Your task to perform on an android device: find photos in the google photos app Image 0: 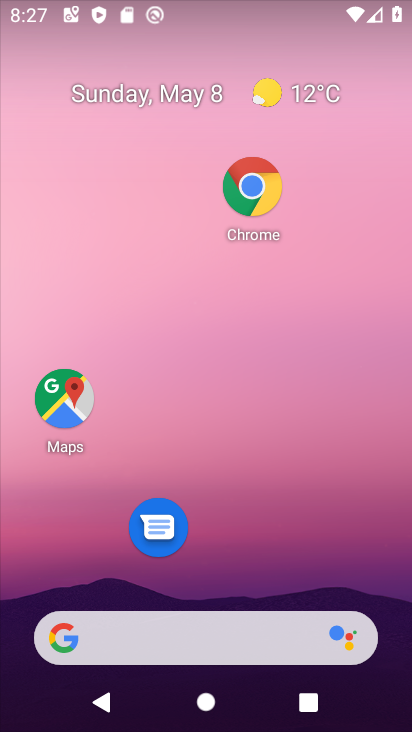
Step 0: drag from (314, 411) to (322, 265)
Your task to perform on an android device: find photos in the google photos app Image 1: 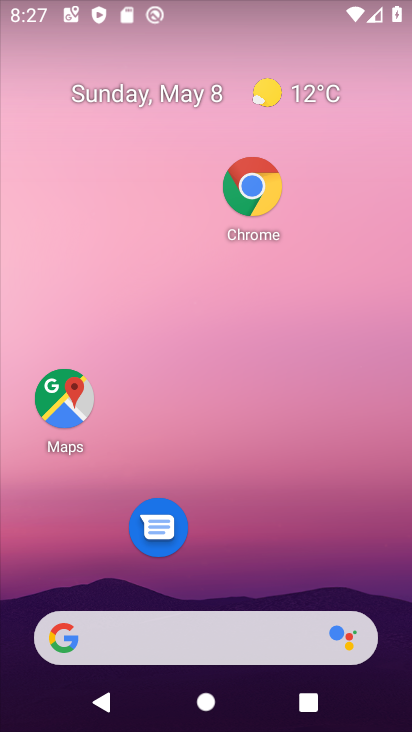
Step 1: drag from (331, 479) to (347, 264)
Your task to perform on an android device: find photos in the google photos app Image 2: 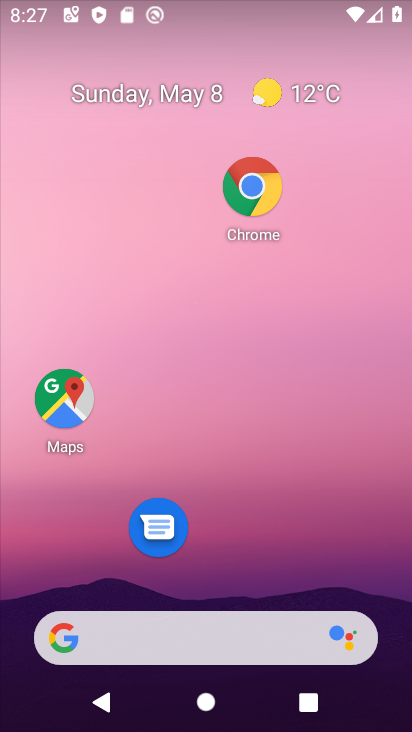
Step 2: drag from (286, 556) to (395, 174)
Your task to perform on an android device: find photos in the google photos app Image 3: 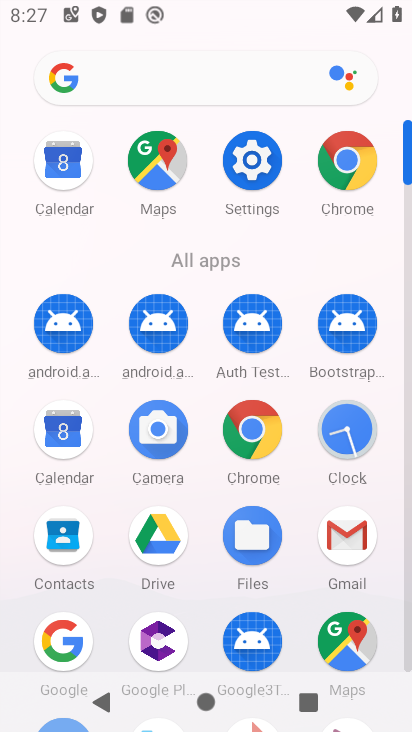
Step 3: click (340, 644)
Your task to perform on an android device: find photos in the google photos app Image 4: 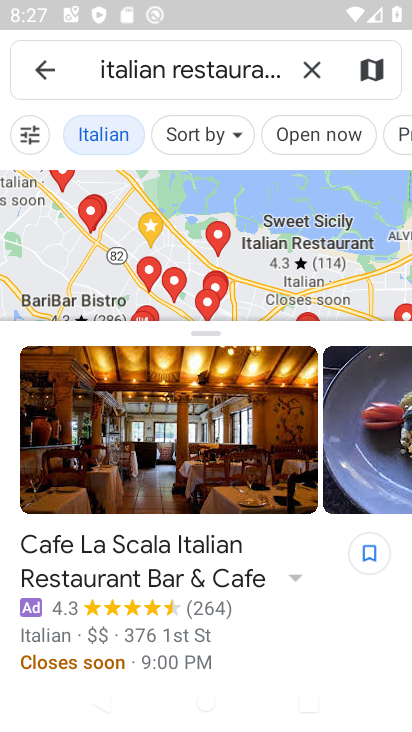
Step 4: press home button
Your task to perform on an android device: find photos in the google photos app Image 5: 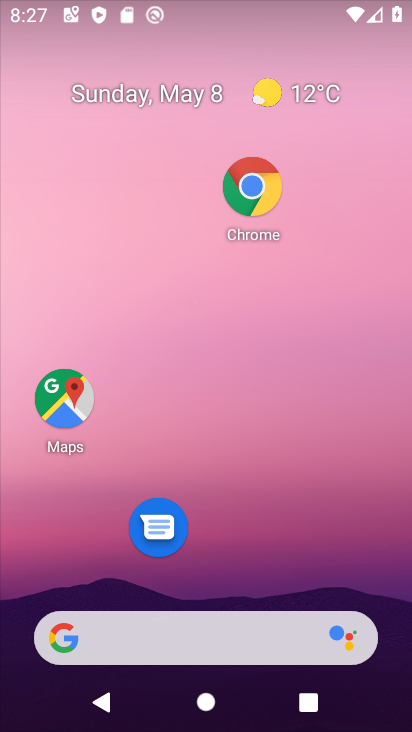
Step 5: drag from (270, 509) to (299, 228)
Your task to perform on an android device: find photos in the google photos app Image 6: 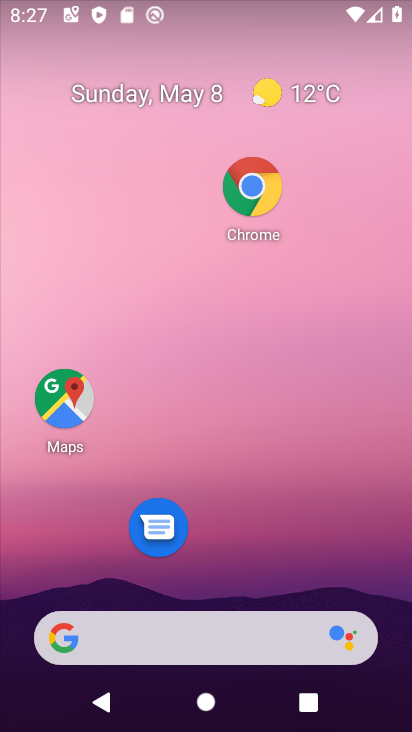
Step 6: drag from (253, 564) to (325, 155)
Your task to perform on an android device: find photos in the google photos app Image 7: 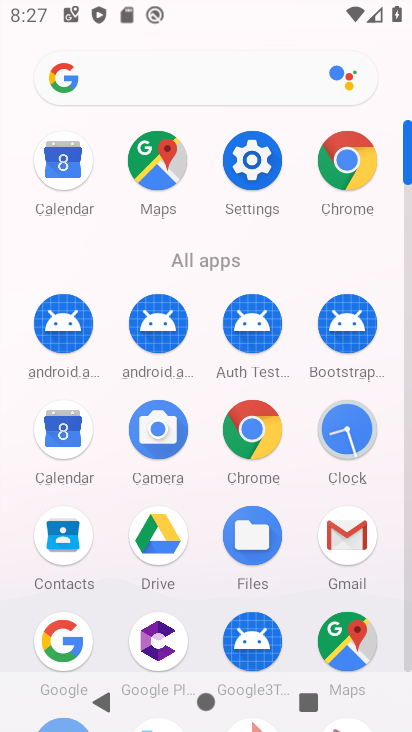
Step 7: drag from (190, 597) to (281, 162)
Your task to perform on an android device: find photos in the google photos app Image 8: 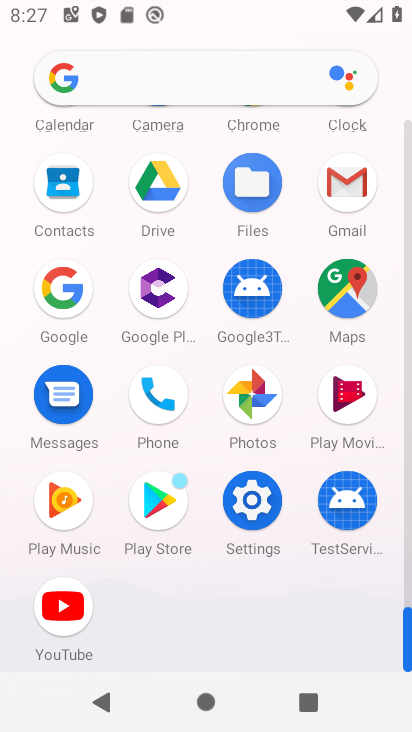
Step 8: click (250, 403)
Your task to perform on an android device: find photos in the google photos app Image 9: 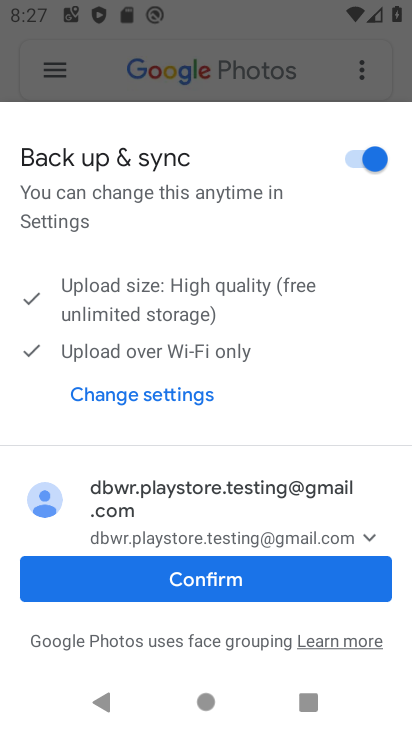
Step 9: click (199, 571)
Your task to perform on an android device: find photos in the google photos app Image 10: 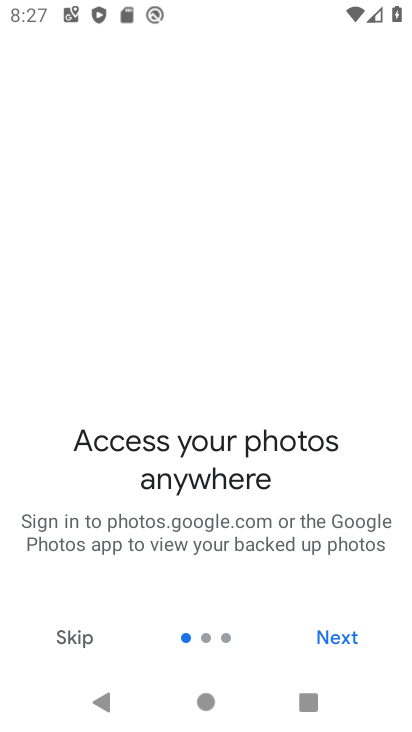
Step 10: click (77, 633)
Your task to perform on an android device: find photos in the google photos app Image 11: 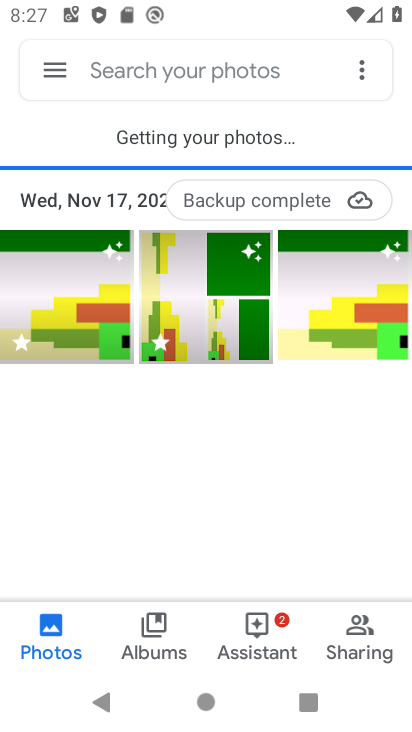
Step 11: click (151, 634)
Your task to perform on an android device: find photos in the google photos app Image 12: 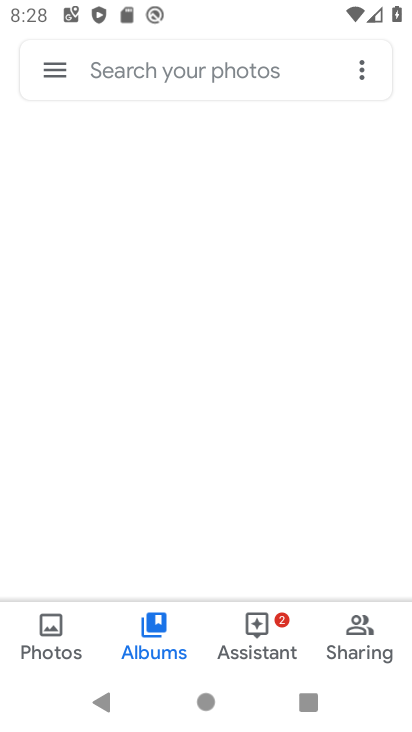
Step 12: click (83, 330)
Your task to perform on an android device: find photos in the google photos app Image 13: 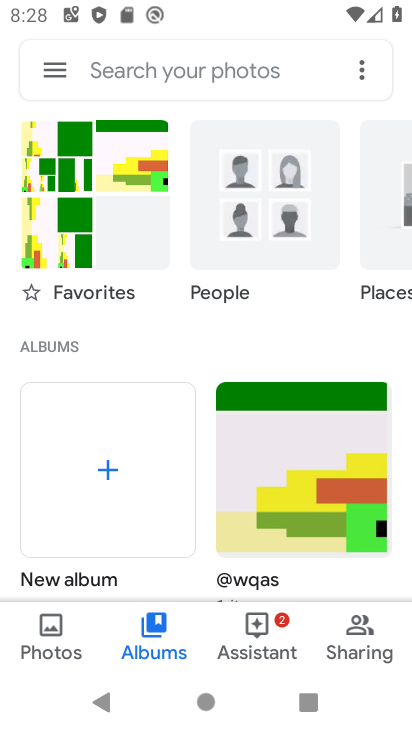
Step 13: click (54, 158)
Your task to perform on an android device: find photos in the google photos app Image 14: 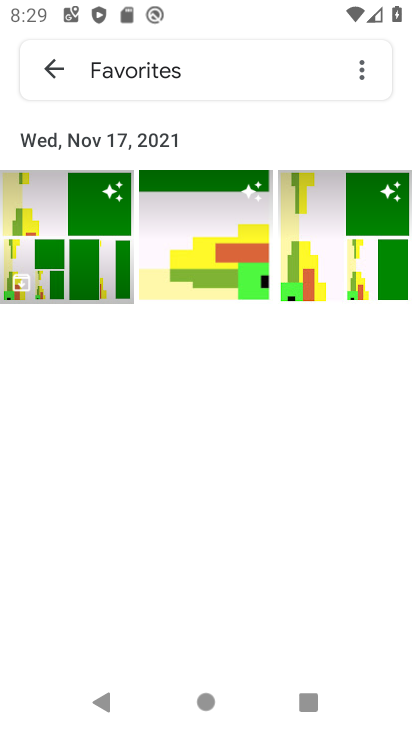
Step 14: task complete